Your task to perform on an android device: Set the phone to "Do not disturb". Image 0: 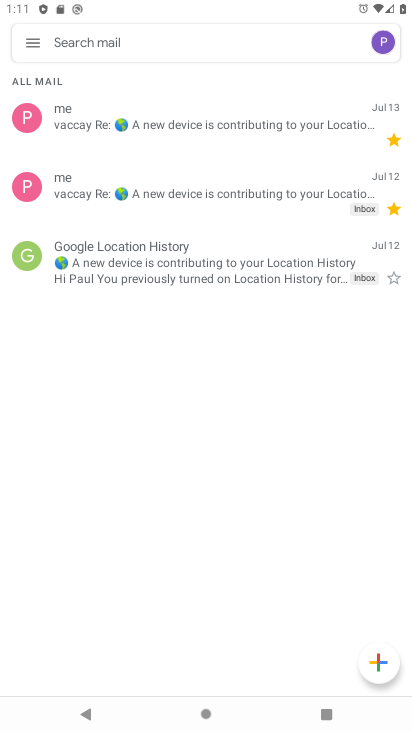
Step 0: press home button
Your task to perform on an android device: Set the phone to "Do not disturb". Image 1: 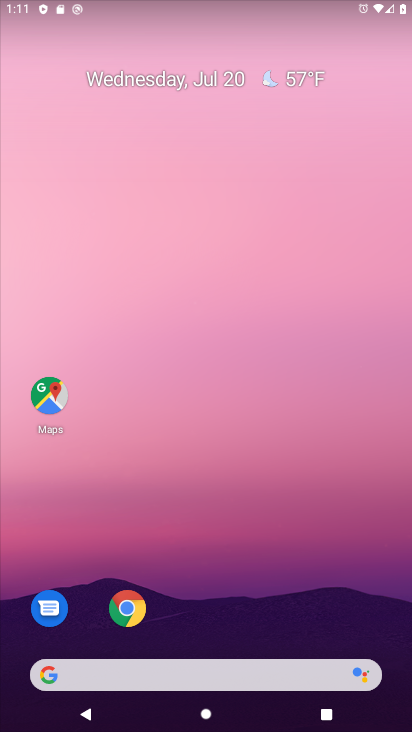
Step 1: drag from (156, 676) to (245, 159)
Your task to perform on an android device: Set the phone to "Do not disturb". Image 2: 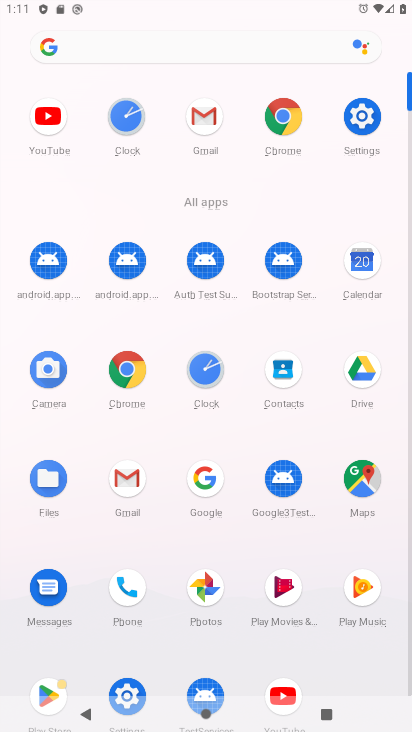
Step 2: click (364, 121)
Your task to perform on an android device: Set the phone to "Do not disturb". Image 3: 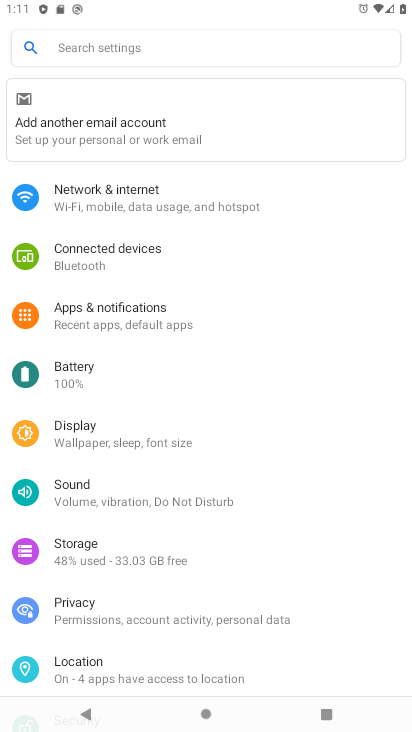
Step 3: click (175, 501)
Your task to perform on an android device: Set the phone to "Do not disturb". Image 4: 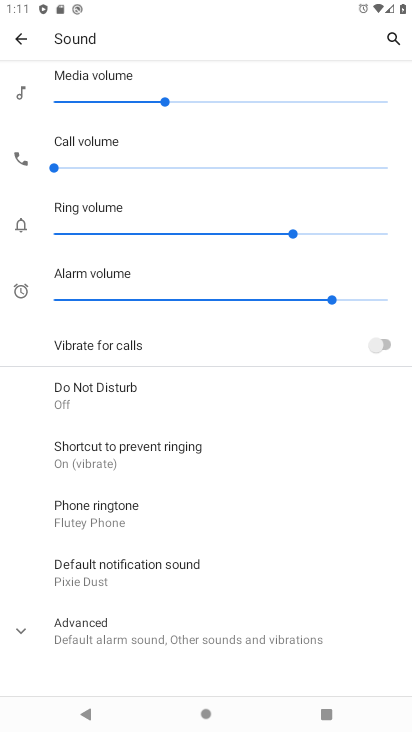
Step 4: click (173, 396)
Your task to perform on an android device: Set the phone to "Do not disturb". Image 5: 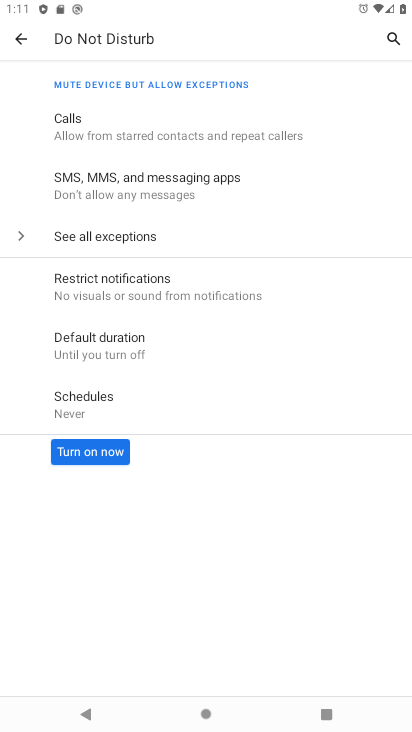
Step 5: click (74, 453)
Your task to perform on an android device: Set the phone to "Do not disturb". Image 6: 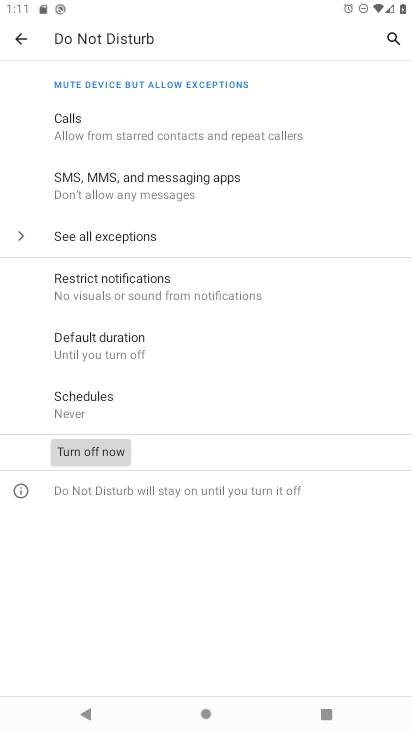
Step 6: task complete